Your task to perform on an android device: change the clock display to show seconds Image 0: 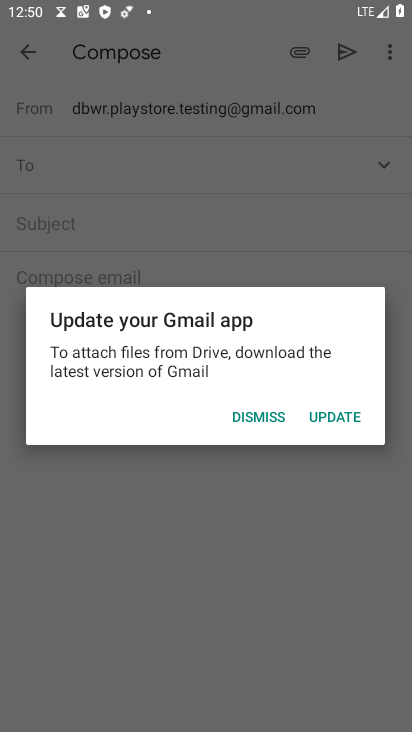
Step 0: press home button
Your task to perform on an android device: change the clock display to show seconds Image 1: 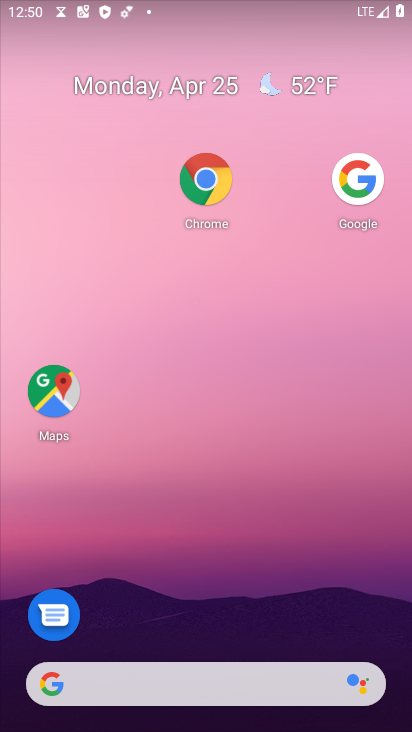
Step 1: drag from (164, 678) to (310, 86)
Your task to perform on an android device: change the clock display to show seconds Image 2: 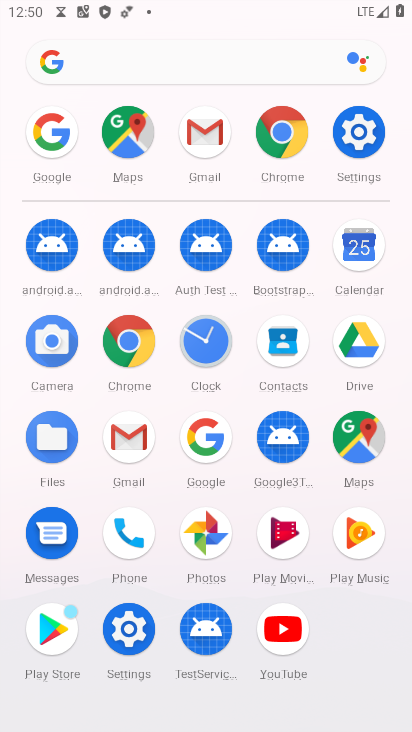
Step 2: click (205, 352)
Your task to perform on an android device: change the clock display to show seconds Image 3: 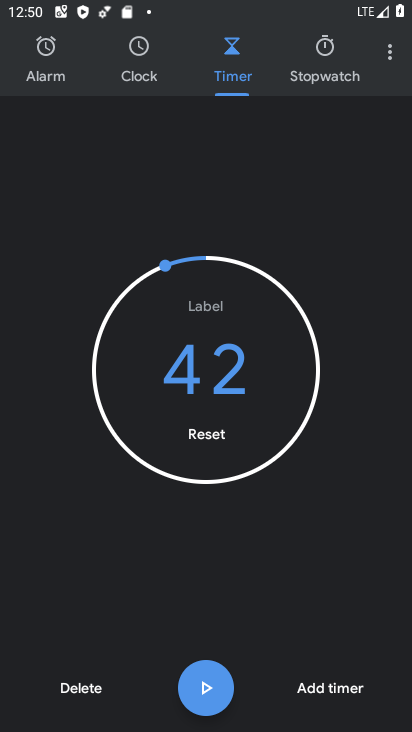
Step 3: click (387, 51)
Your task to perform on an android device: change the clock display to show seconds Image 4: 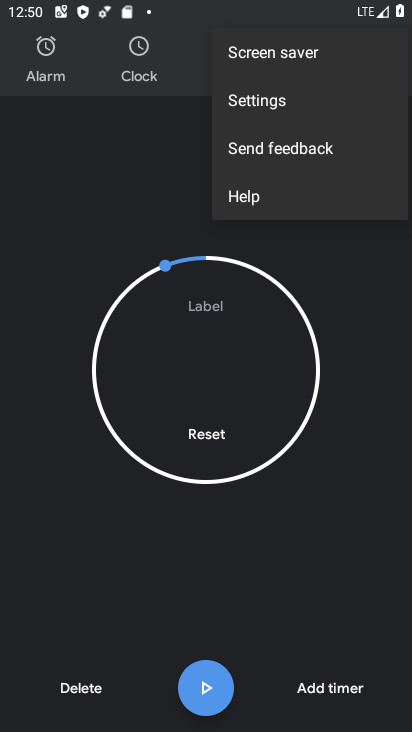
Step 4: click (274, 99)
Your task to perform on an android device: change the clock display to show seconds Image 5: 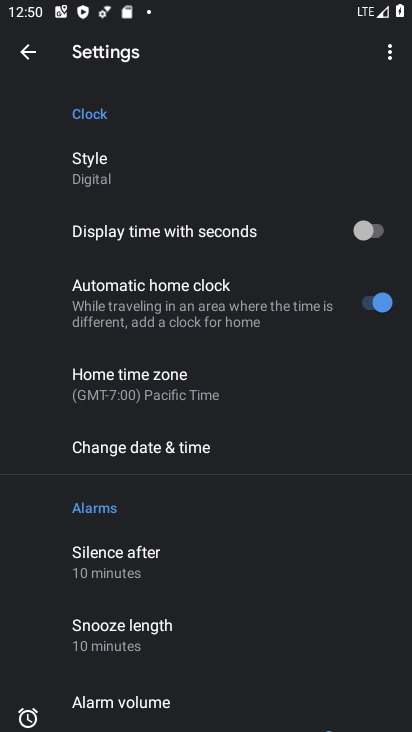
Step 5: click (373, 235)
Your task to perform on an android device: change the clock display to show seconds Image 6: 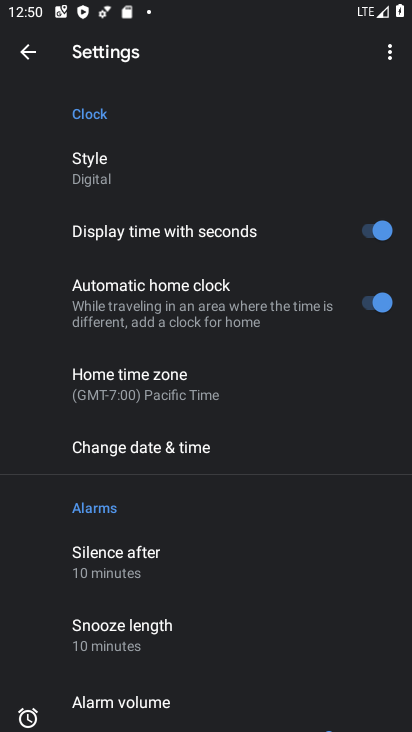
Step 6: task complete